Your task to perform on an android device: change the clock style Image 0: 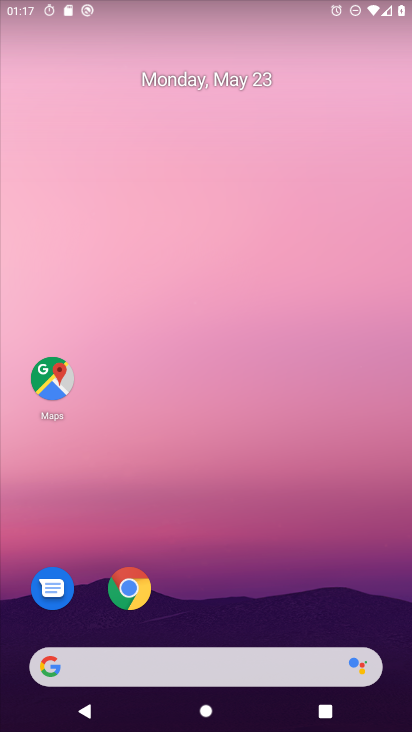
Step 0: drag from (253, 666) to (199, 180)
Your task to perform on an android device: change the clock style Image 1: 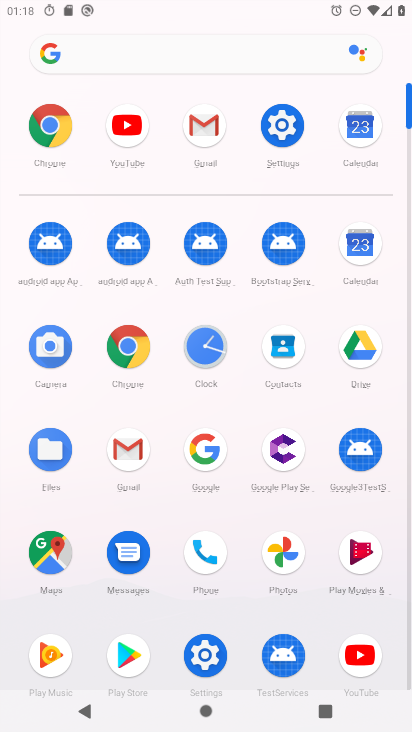
Step 1: click (207, 342)
Your task to perform on an android device: change the clock style Image 2: 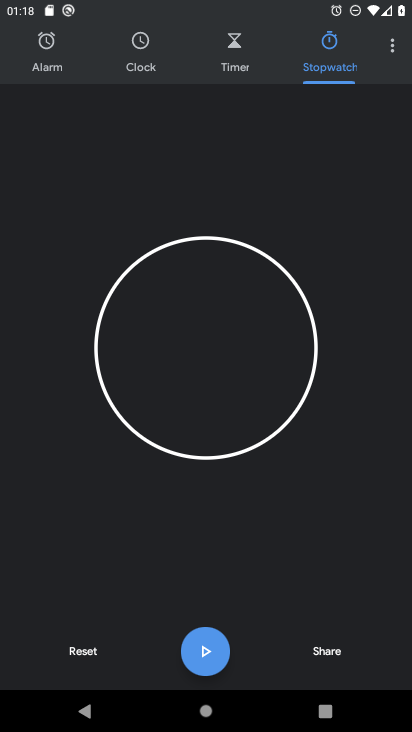
Step 2: click (388, 55)
Your task to perform on an android device: change the clock style Image 3: 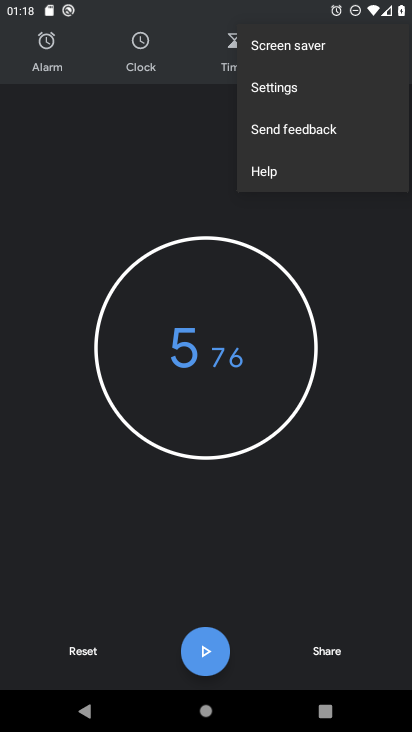
Step 3: click (266, 88)
Your task to perform on an android device: change the clock style Image 4: 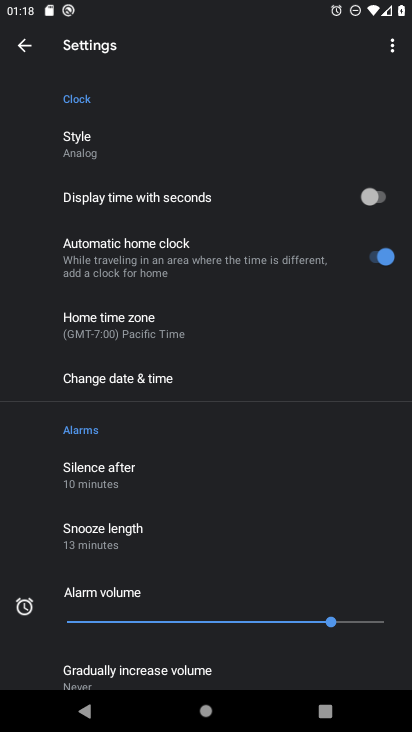
Step 4: click (163, 146)
Your task to perform on an android device: change the clock style Image 5: 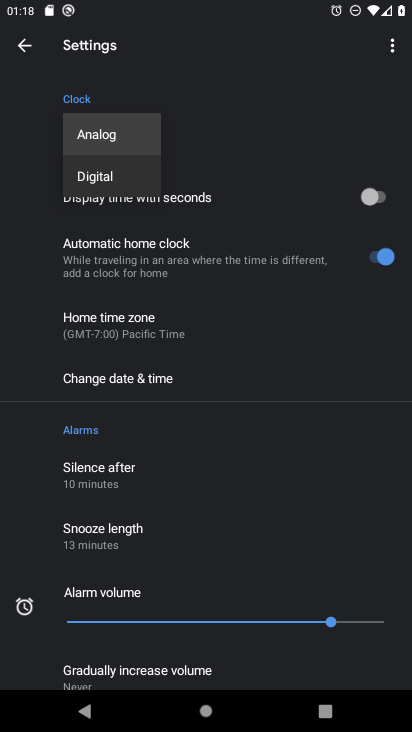
Step 5: click (94, 172)
Your task to perform on an android device: change the clock style Image 6: 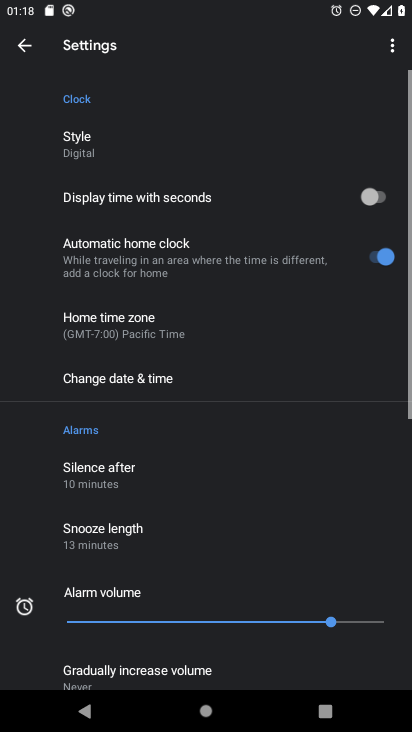
Step 6: task complete